Your task to perform on an android device: When is my next meeting? Image 0: 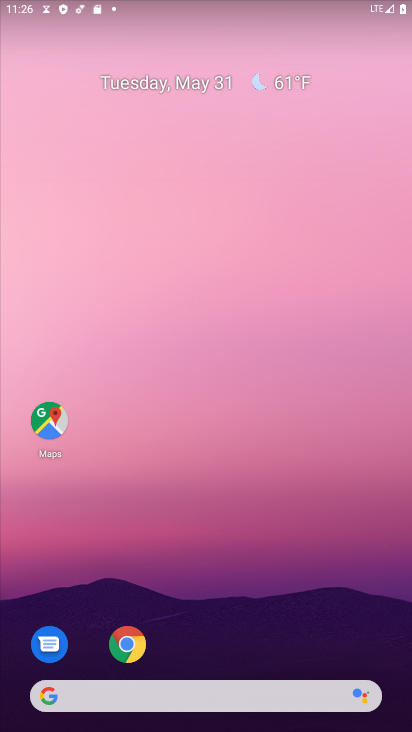
Step 0: drag from (206, 562) to (317, 134)
Your task to perform on an android device: When is my next meeting? Image 1: 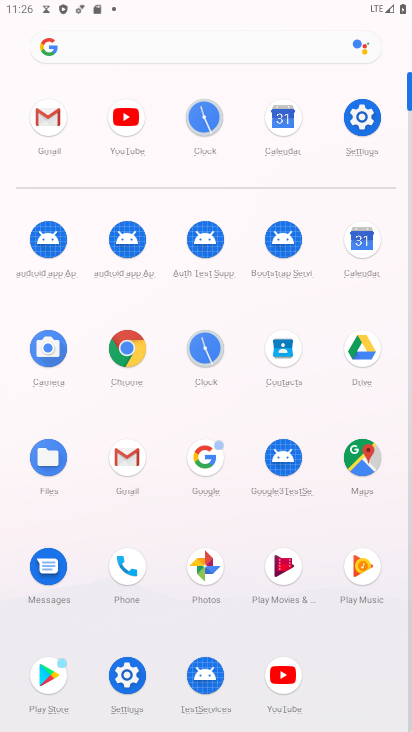
Step 1: click (361, 245)
Your task to perform on an android device: When is my next meeting? Image 2: 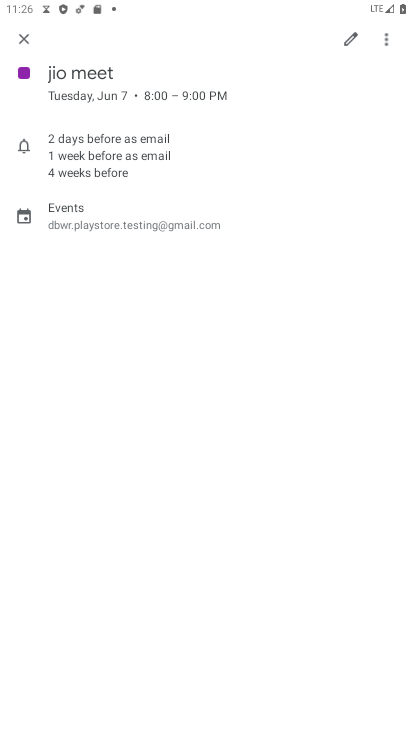
Step 2: task complete